Your task to perform on an android device: install app "PUBG MOBILE" Image 0: 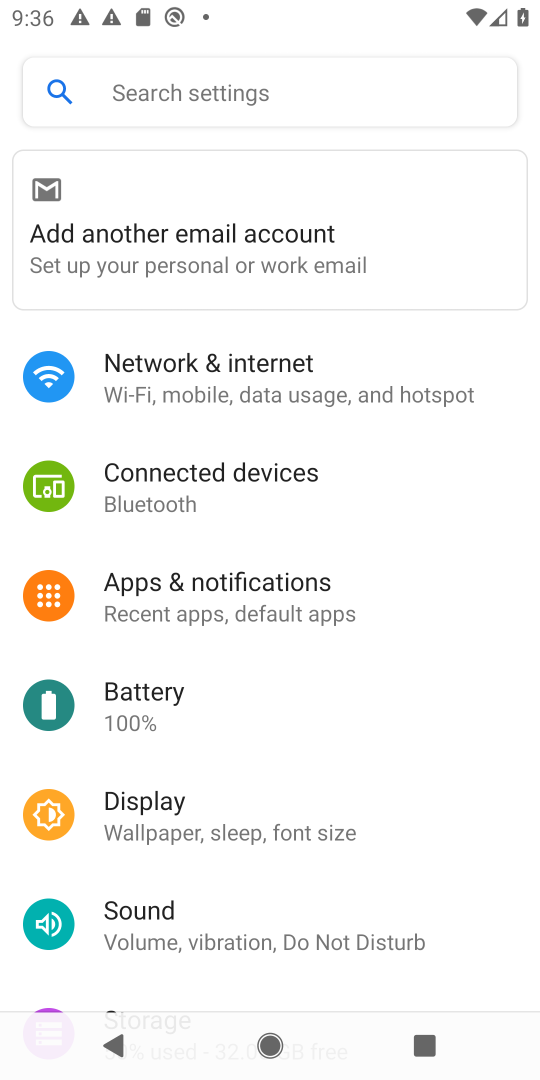
Step 0: press home button
Your task to perform on an android device: install app "PUBG MOBILE" Image 1: 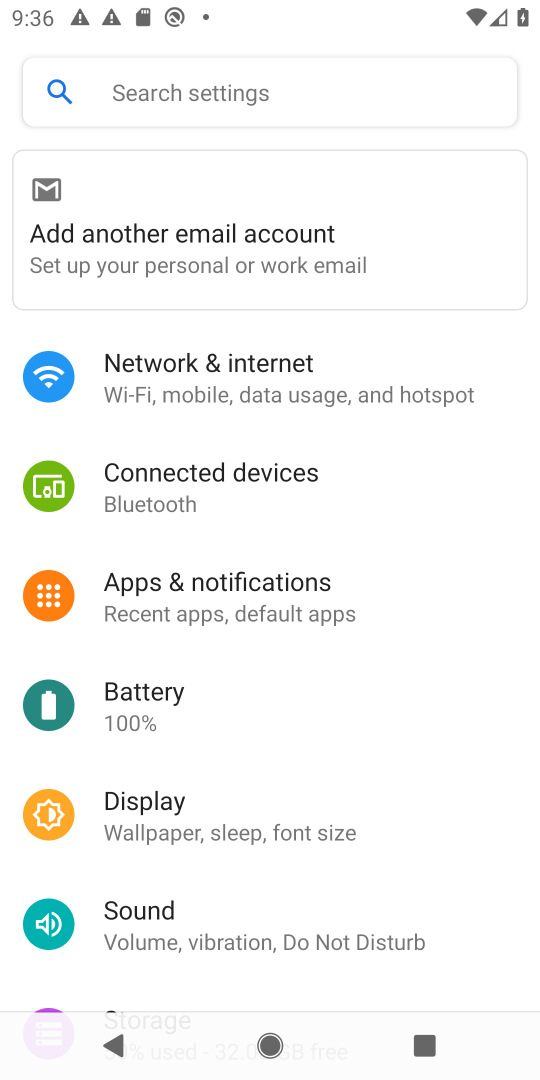
Step 1: press home button
Your task to perform on an android device: install app "PUBG MOBILE" Image 2: 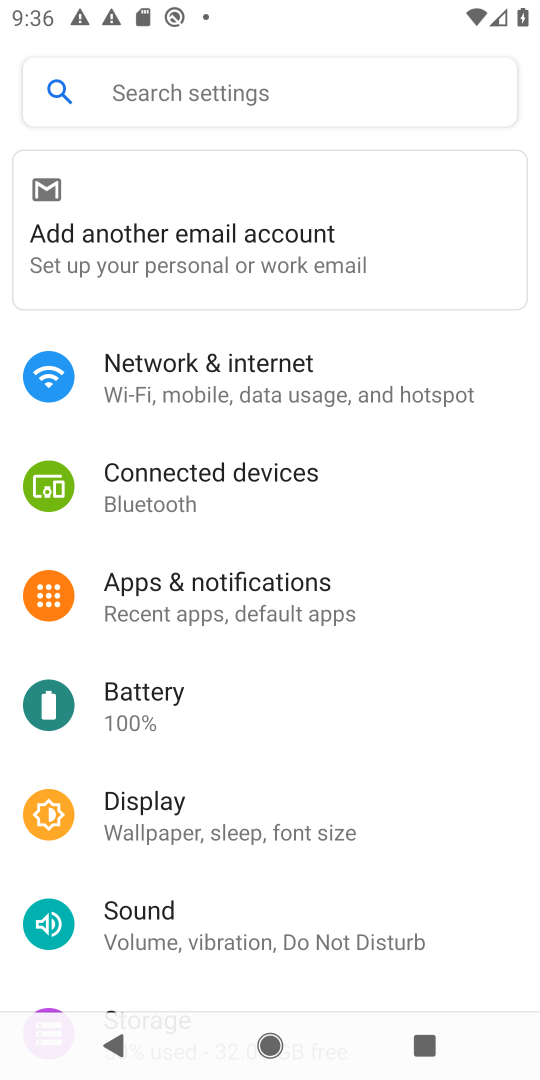
Step 2: drag from (222, 918) to (290, 153)
Your task to perform on an android device: install app "PUBG MOBILE" Image 3: 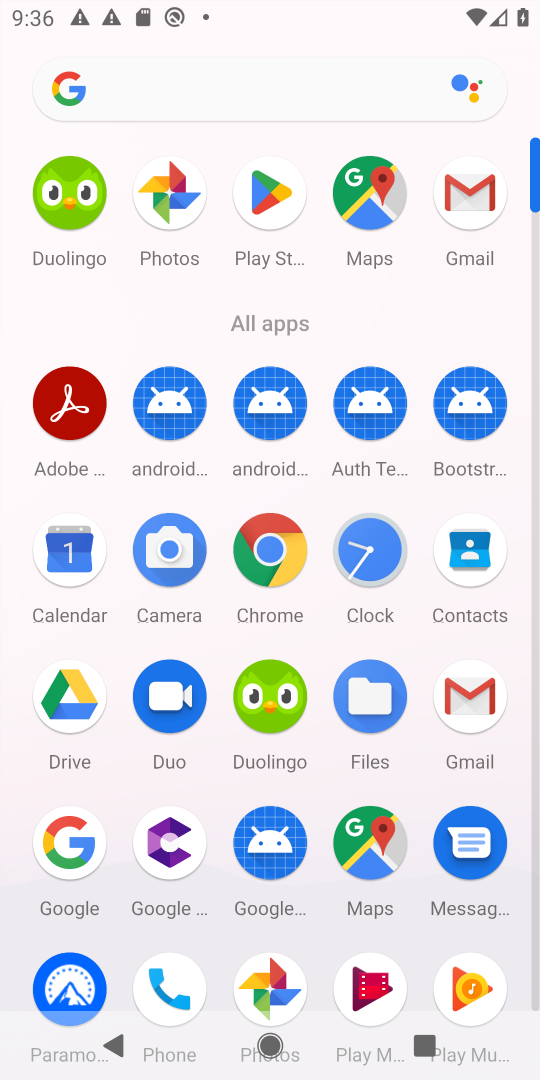
Step 3: click (280, 205)
Your task to perform on an android device: install app "PUBG MOBILE" Image 4: 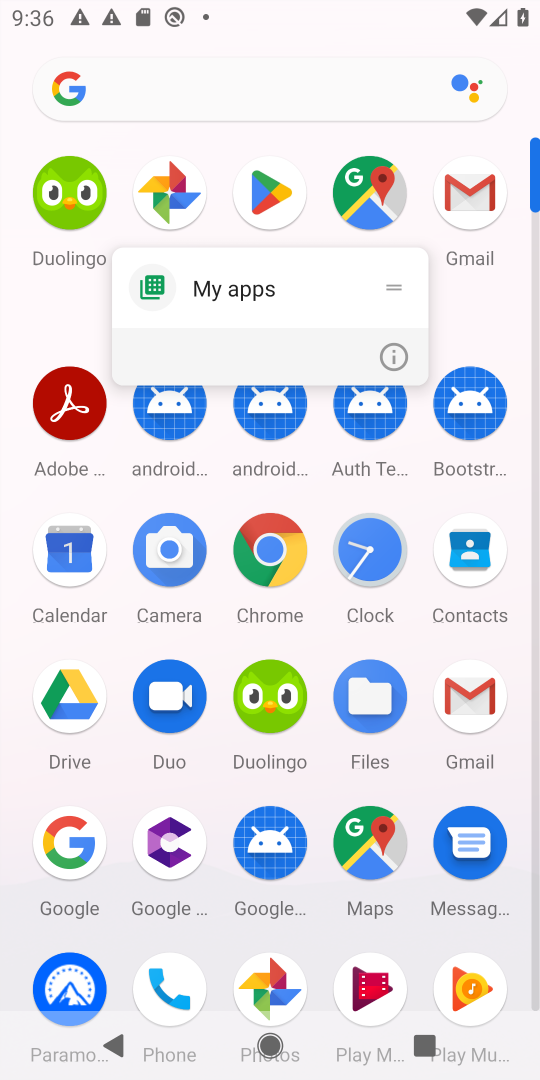
Step 4: click (403, 353)
Your task to perform on an android device: install app "PUBG MOBILE" Image 5: 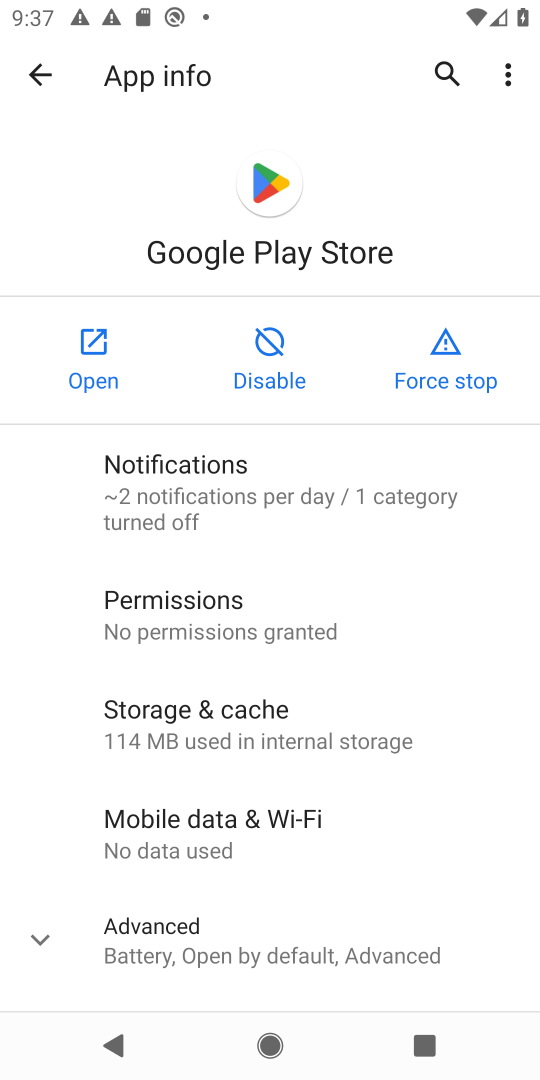
Step 5: click (84, 342)
Your task to perform on an android device: install app "PUBG MOBILE" Image 6: 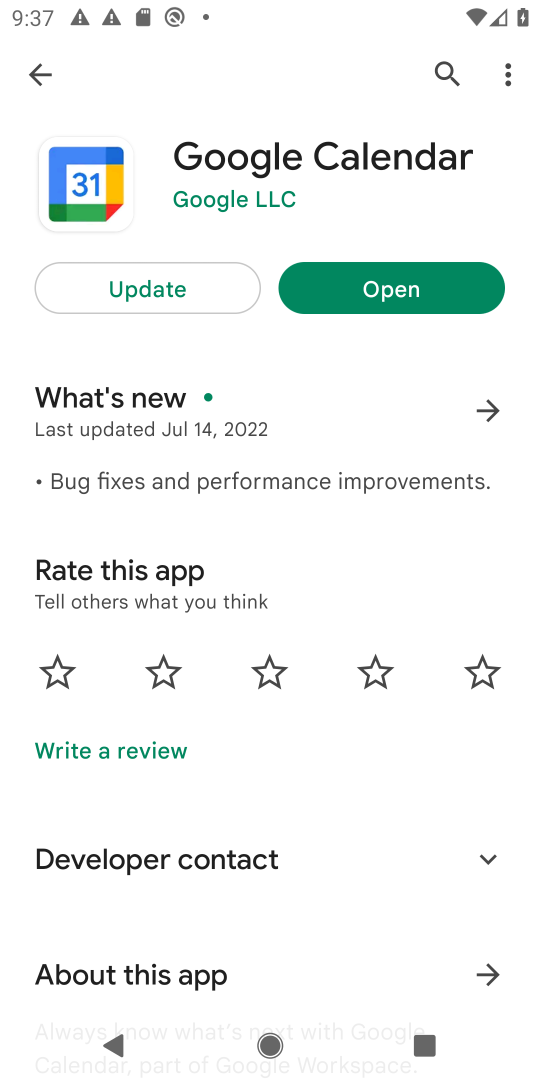
Step 6: click (453, 81)
Your task to perform on an android device: install app "PUBG MOBILE" Image 7: 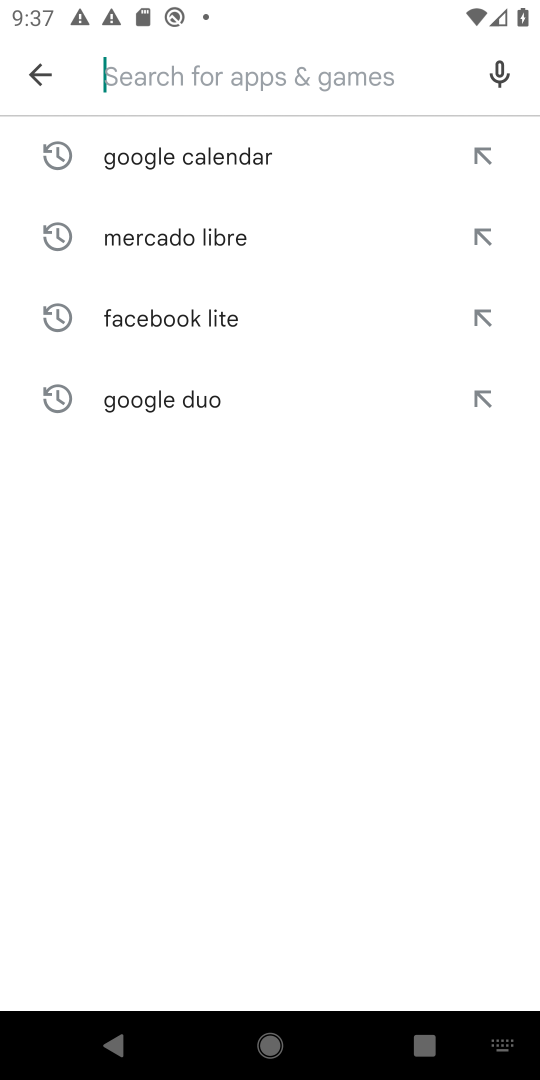
Step 7: type "PUBG MOBILE"
Your task to perform on an android device: install app "PUBG MOBILE" Image 8: 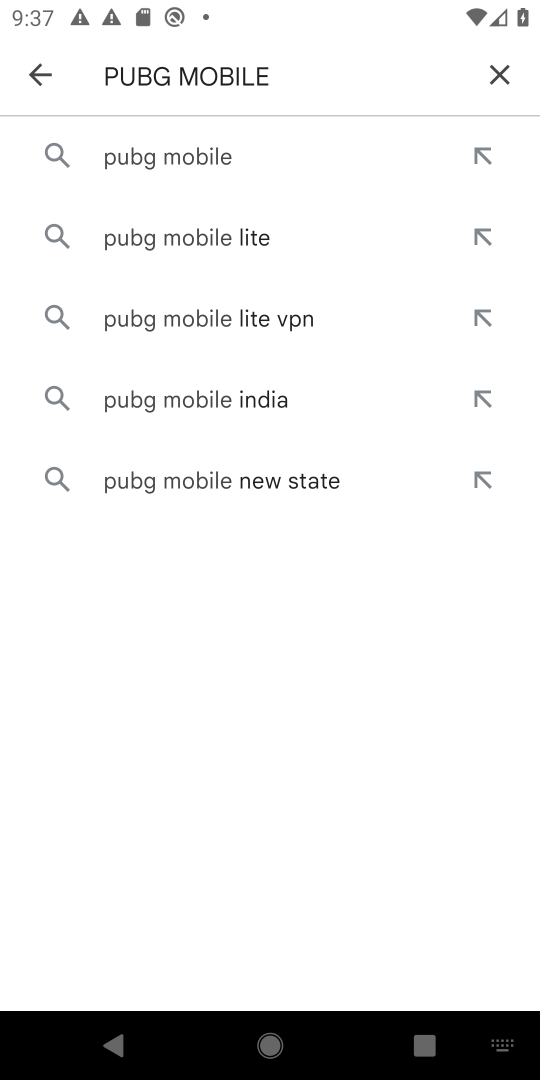
Step 8: type "PUBG MOBILE"
Your task to perform on an android device: install app "PUBG MOBILE" Image 9: 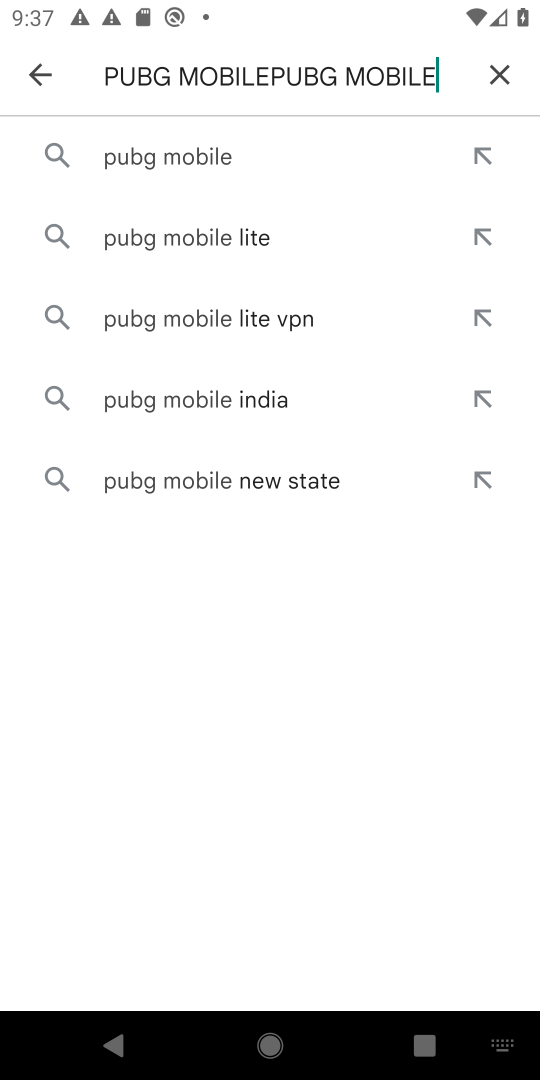
Step 9: type ""
Your task to perform on an android device: install app "PUBG MOBILE" Image 10: 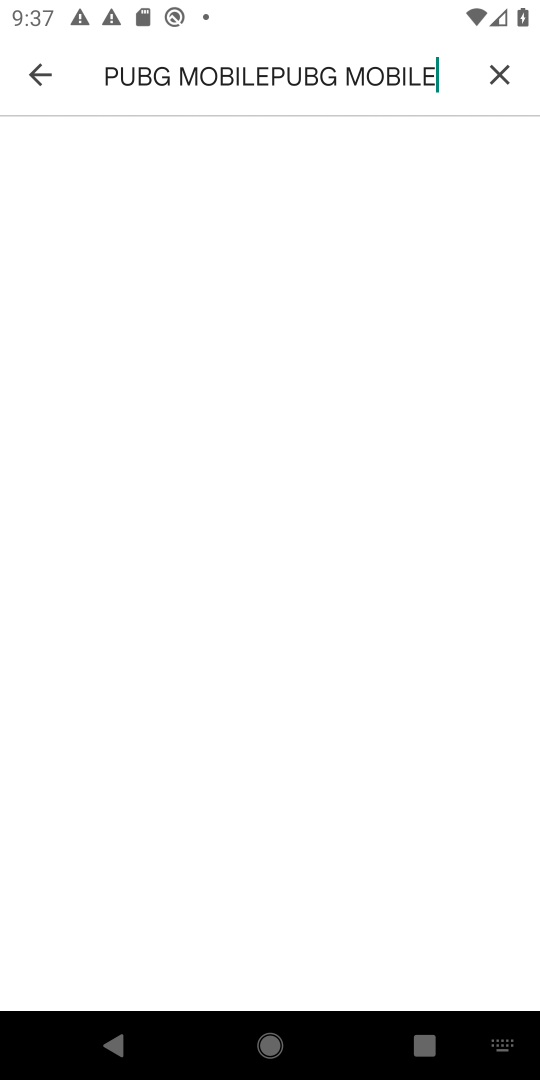
Step 10: click (512, 80)
Your task to perform on an android device: install app "PUBG MOBILE" Image 11: 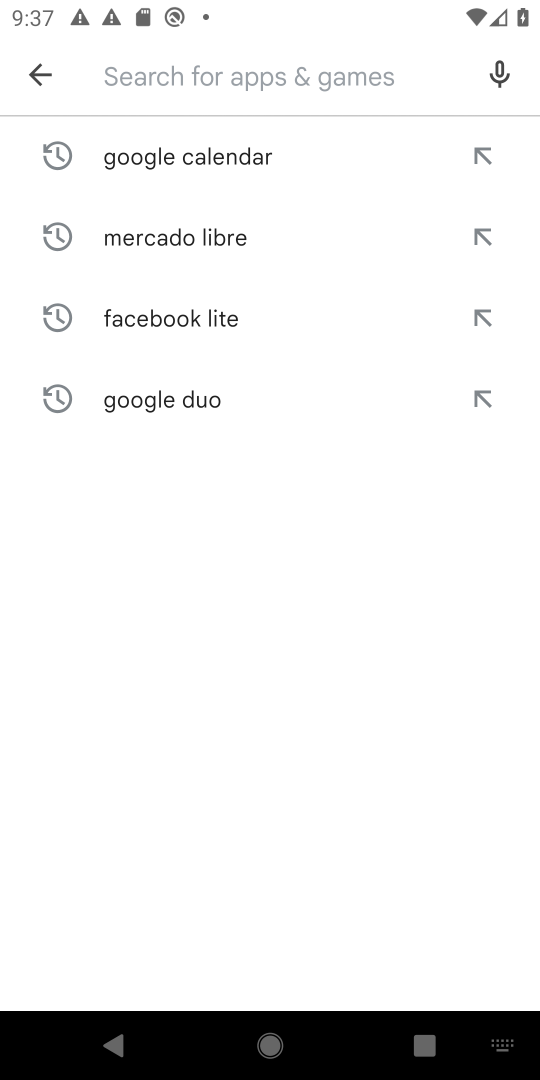
Step 11: type "PUBG MOBILE"
Your task to perform on an android device: install app "PUBG MOBILE" Image 12: 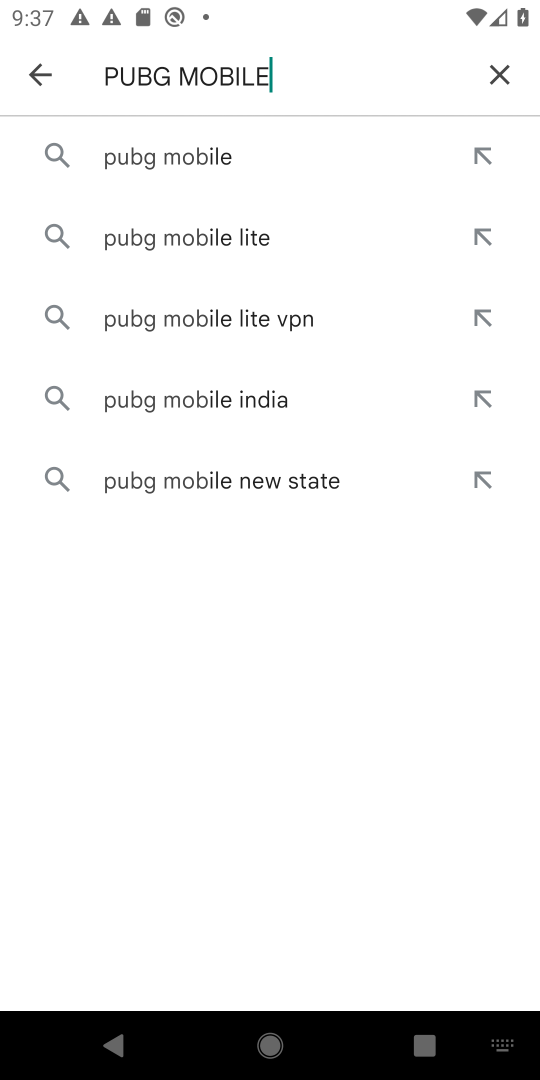
Step 12: type ""
Your task to perform on an android device: install app "PUBG MOBILE" Image 13: 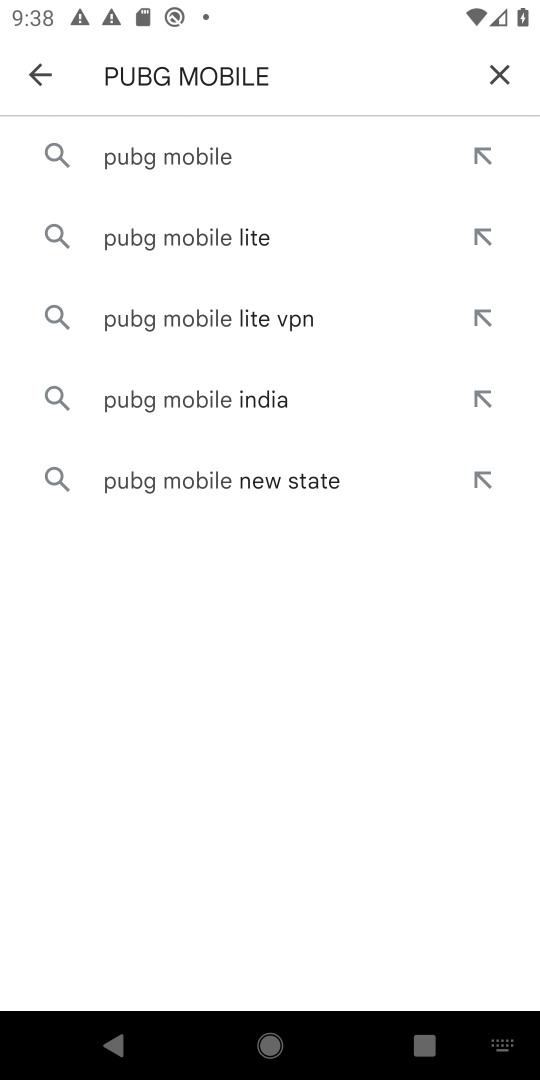
Step 13: click (241, 147)
Your task to perform on an android device: install app "PUBG MOBILE" Image 14: 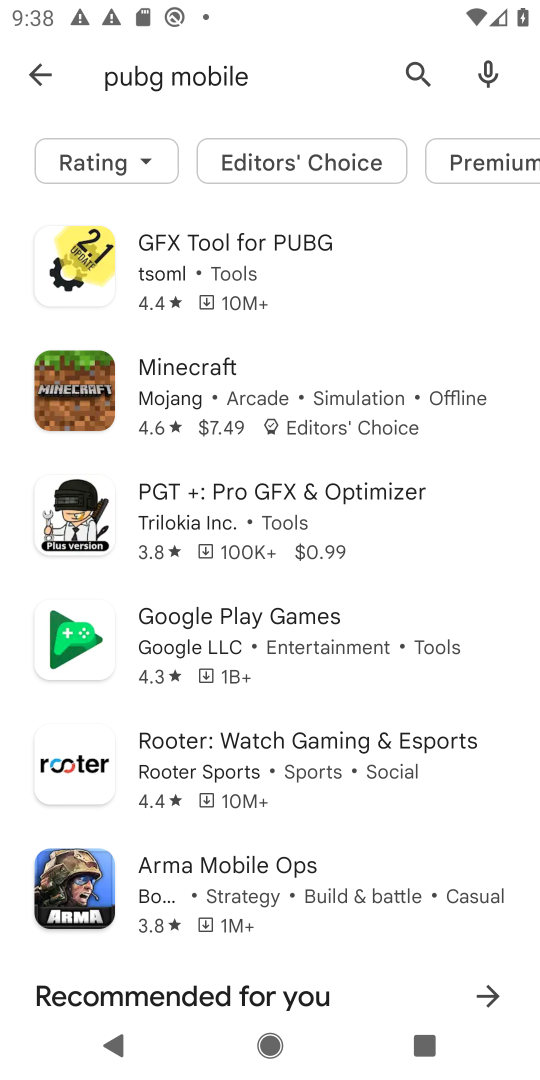
Step 14: task complete